Your task to perform on an android device: turn on showing notifications on the lock screen Image 0: 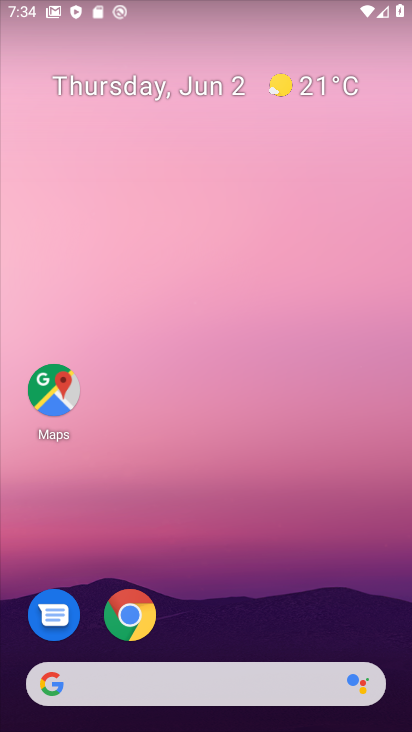
Step 0: click (42, 380)
Your task to perform on an android device: turn on showing notifications on the lock screen Image 1: 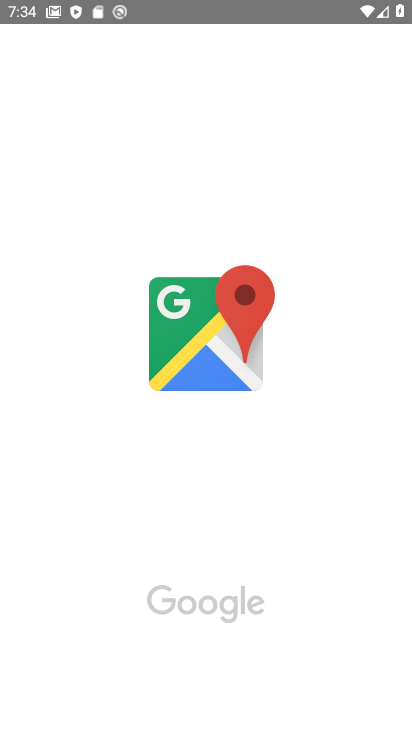
Step 1: task complete